Your task to perform on an android device: check battery use Image 0: 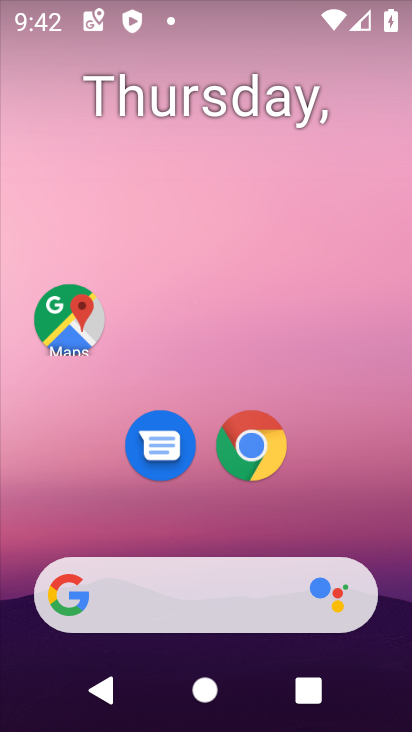
Step 0: drag from (184, 560) to (255, 182)
Your task to perform on an android device: check battery use Image 1: 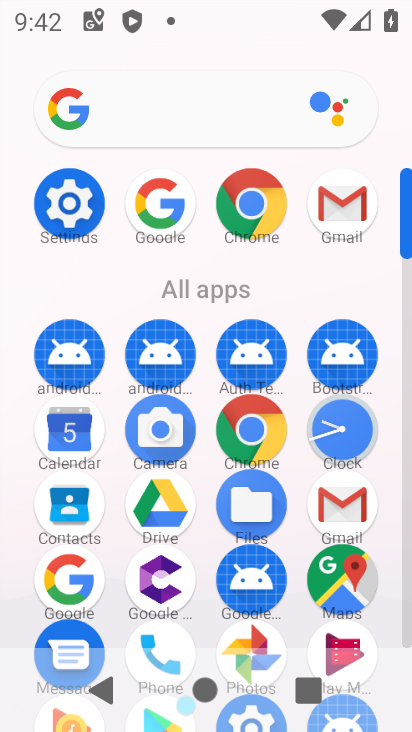
Step 1: click (60, 216)
Your task to perform on an android device: check battery use Image 2: 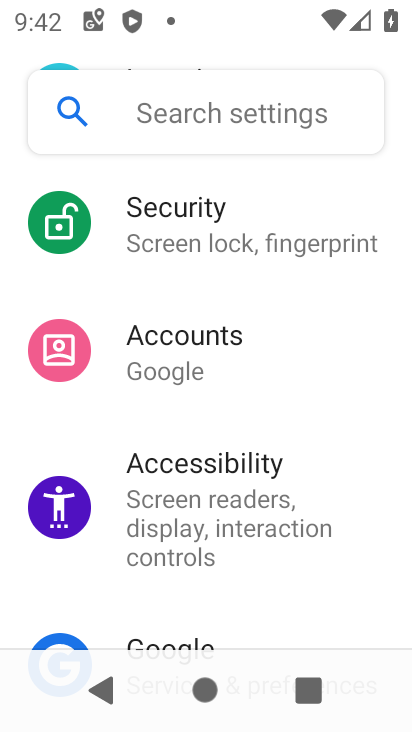
Step 2: drag from (199, 507) to (261, 304)
Your task to perform on an android device: check battery use Image 3: 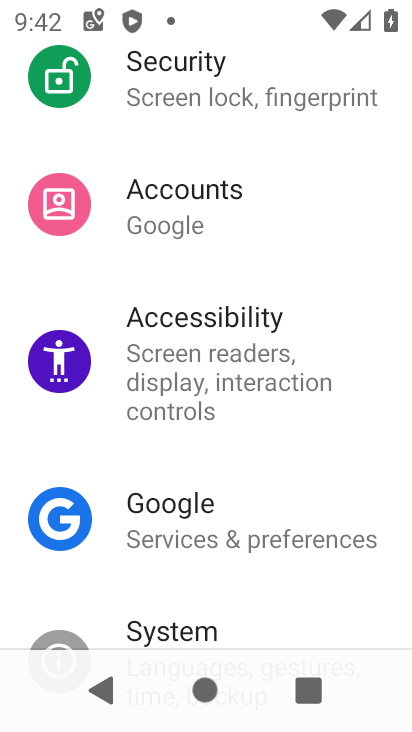
Step 3: drag from (171, 544) to (249, 251)
Your task to perform on an android device: check battery use Image 4: 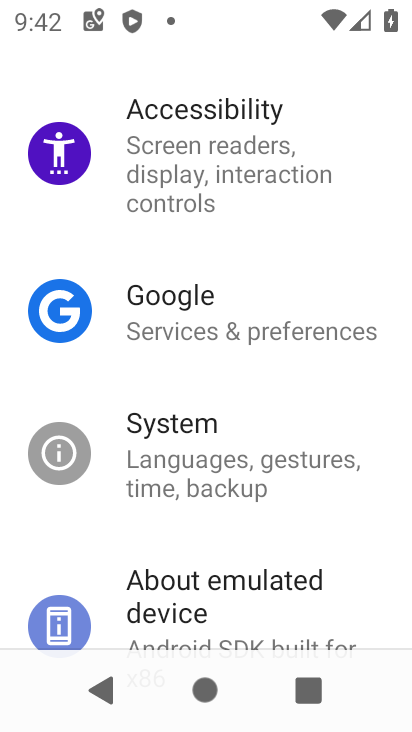
Step 4: drag from (255, 280) to (237, 634)
Your task to perform on an android device: check battery use Image 5: 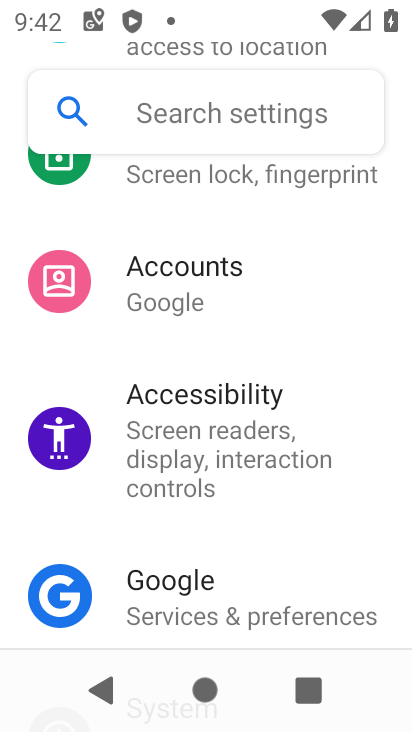
Step 5: drag from (295, 192) to (298, 546)
Your task to perform on an android device: check battery use Image 6: 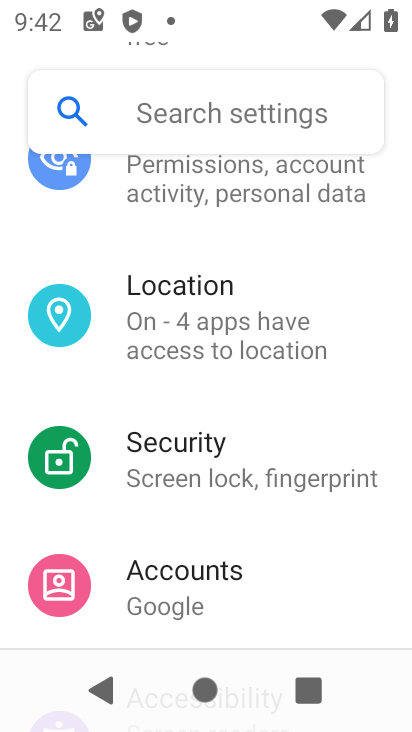
Step 6: drag from (277, 235) to (279, 505)
Your task to perform on an android device: check battery use Image 7: 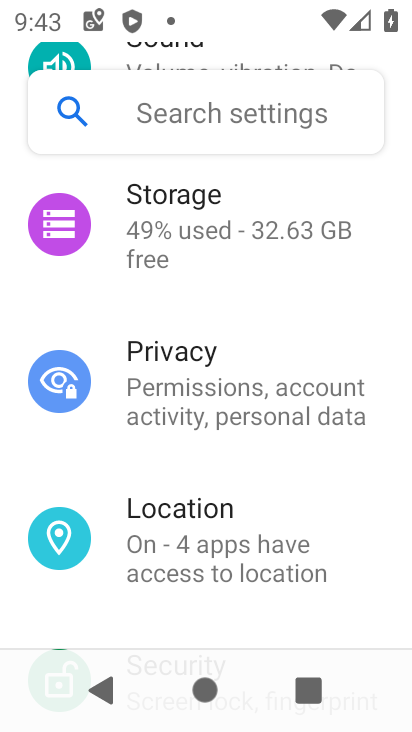
Step 7: drag from (228, 268) to (243, 575)
Your task to perform on an android device: check battery use Image 8: 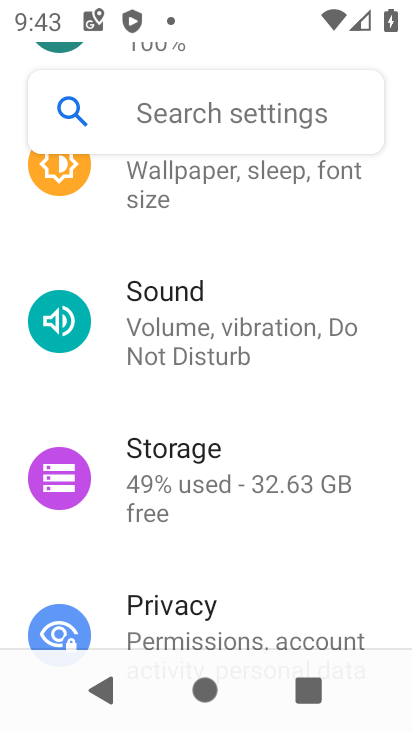
Step 8: drag from (207, 224) to (238, 561)
Your task to perform on an android device: check battery use Image 9: 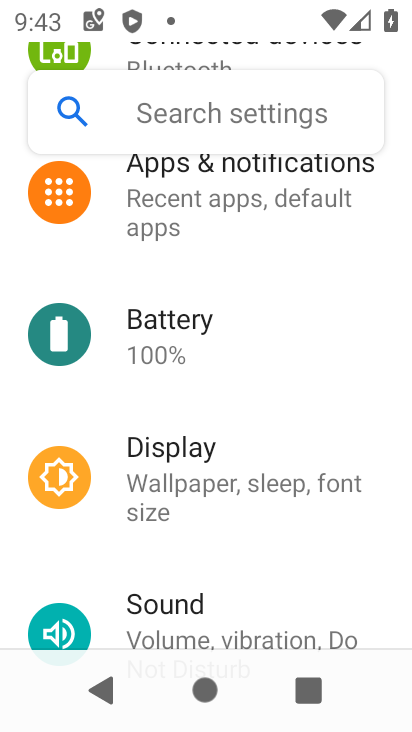
Step 9: click (181, 329)
Your task to perform on an android device: check battery use Image 10: 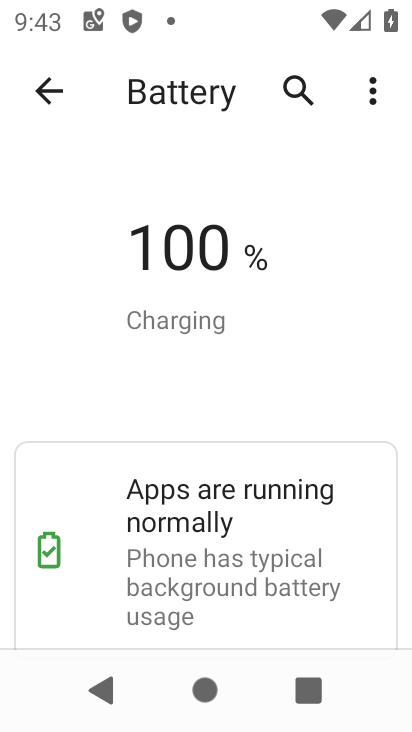
Step 10: click (370, 87)
Your task to perform on an android device: check battery use Image 11: 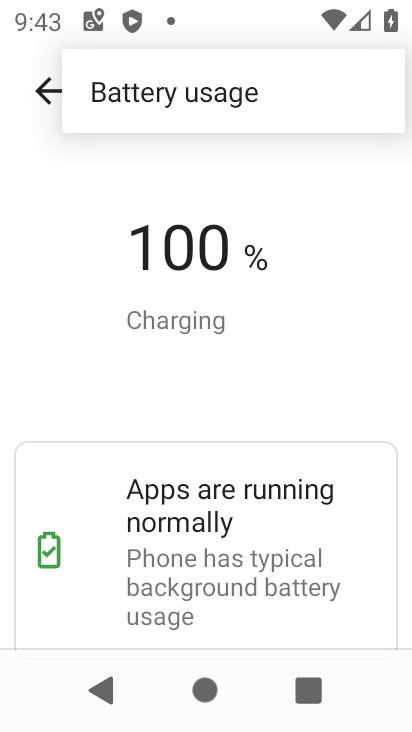
Step 11: click (273, 89)
Your task to perform on an android device: check battery use Image 12: 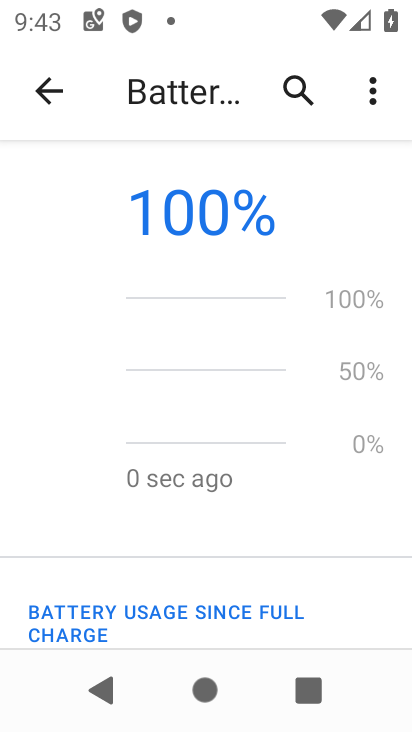
Step 12: task complete